Your task to perform on an android device: snooze an email in the gmail app Image 0: 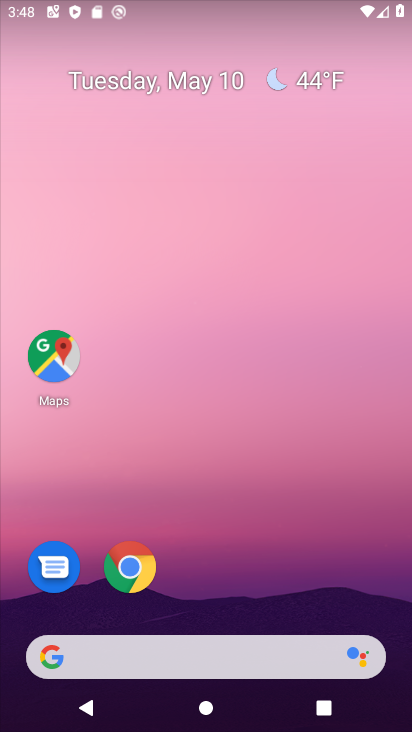
Step 0: drag from (291, 546) to (251, 45)
Your task to perform on an android device: snooze an email in the gmail app Image 1: 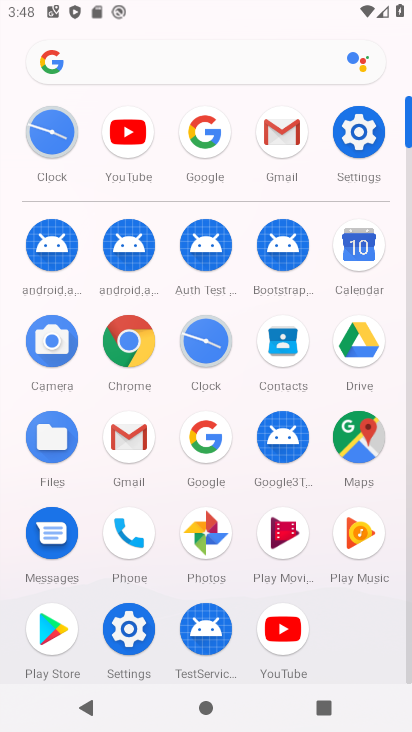
Step 1: click (277, 133)
Your task to perform on an android device: snooze an email in the gmail app Image 2: 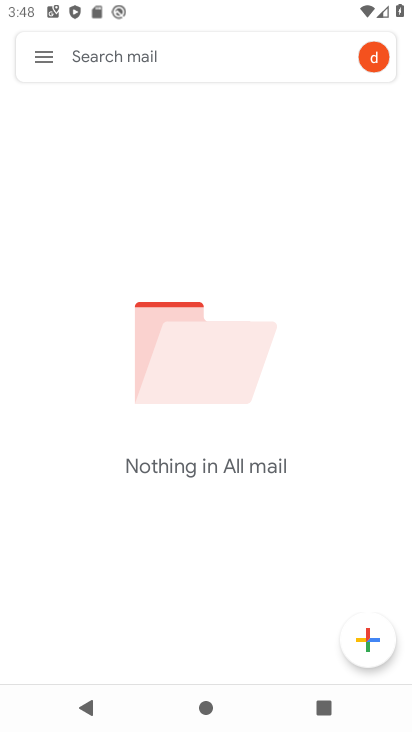
Step 2: click (43, 51)
Your task to perform on an android device: snooze an email in the gmail app Image 3: 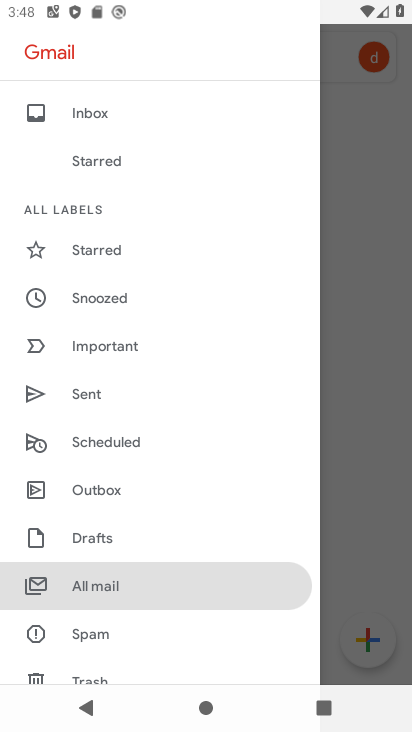
Step 3: click (103, 295)
Your task to perform on an android device: snooze an email in the gmail app Image 4: 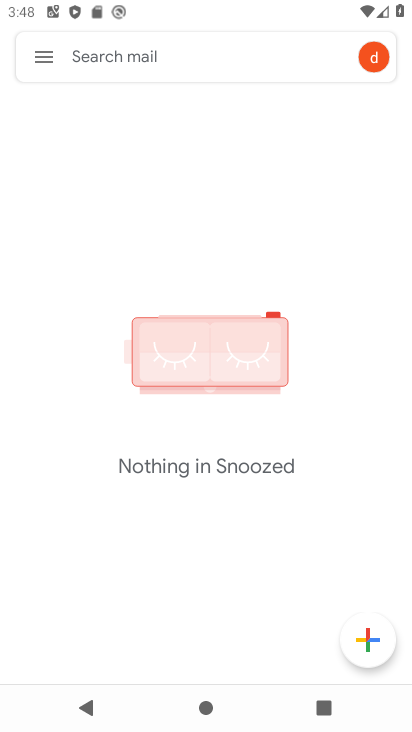
Step 4: click (39, 55)
Your task to perform on an android device: snooze an email in the gmail app Image 5: 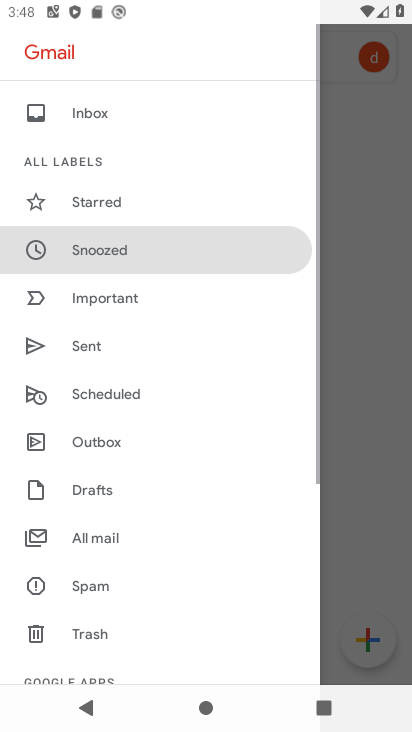
Step 5: click (85, 108)
Your task to perform on an android device: snooze an email in the gmail app Image 6: 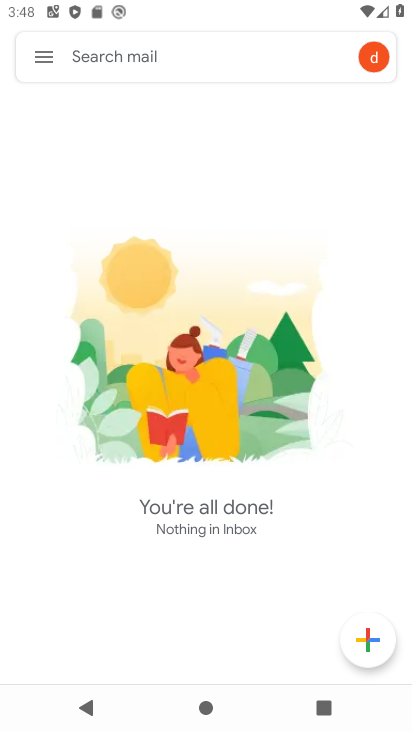
Step 6: click (36, 61)
Your task to perform on an android device: snooze an email in the gmail app Image 7: 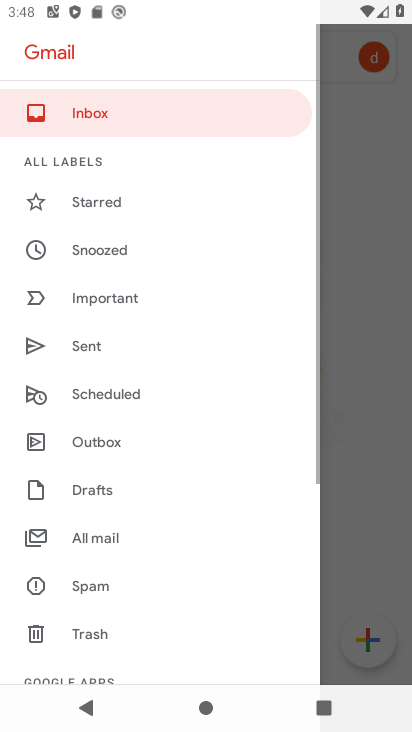
Step 7: drag from (126, 473) to (182, 353)
Your task to perform on an android device: snooze an email in the gmail app Image 8: 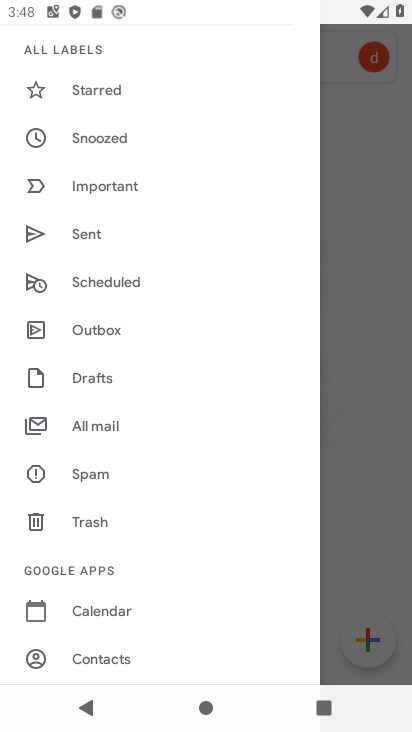
Step 8: click (116, 426)
Your task to perform on an android device: snooze an email in the gmail app Image 9: 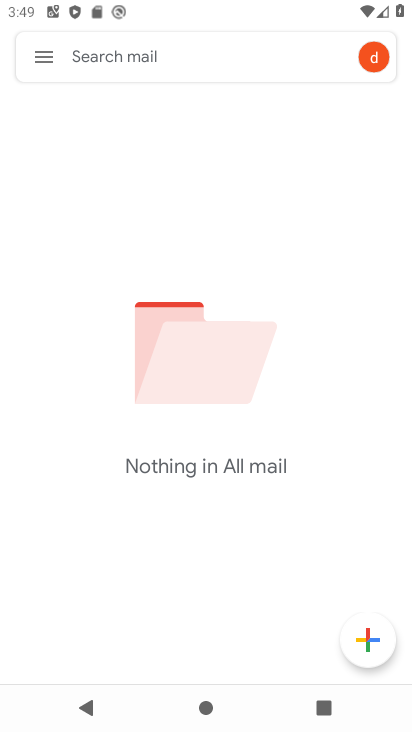
Step 9: task complete